Your task to perform on an android device: Open Android settings Image 0: 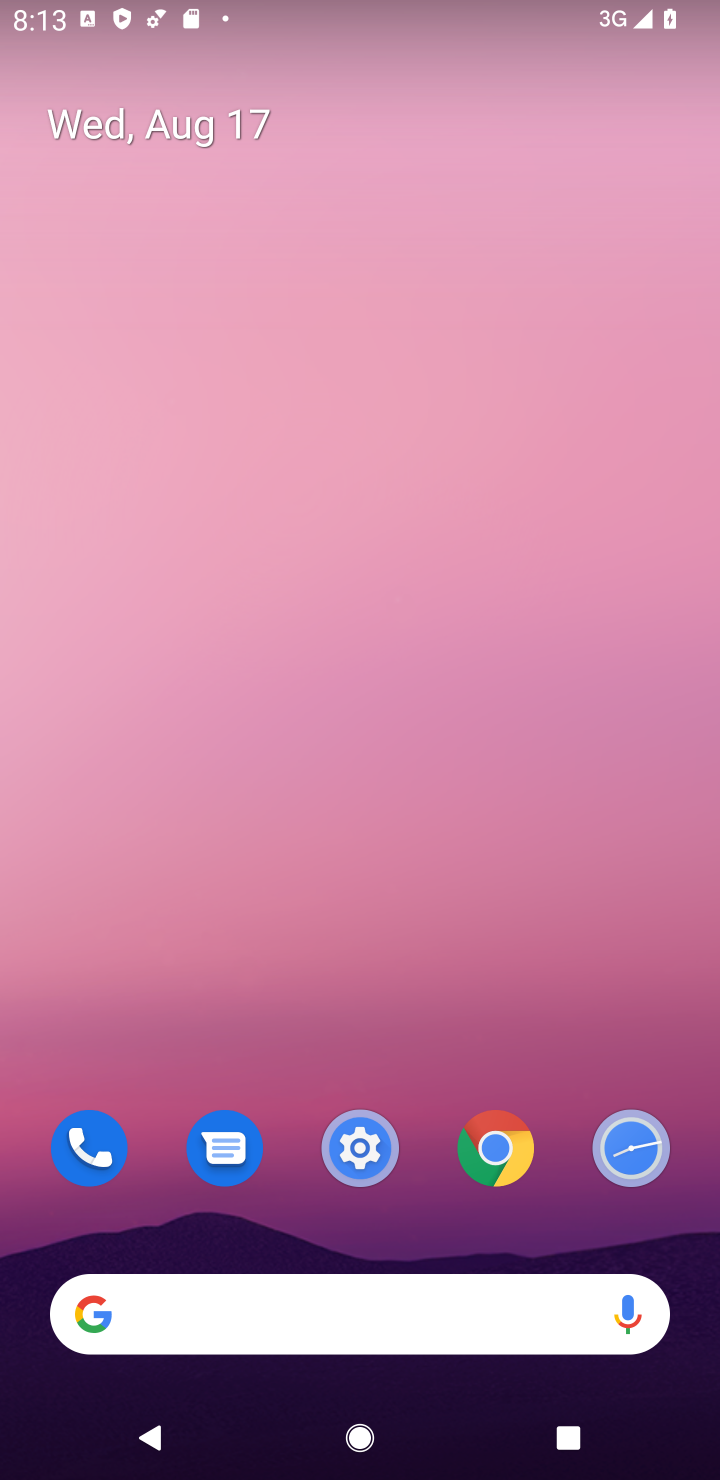
Step 0: click (356, 1147)
Your task to perform on an android device: Open Android settings Image 1: 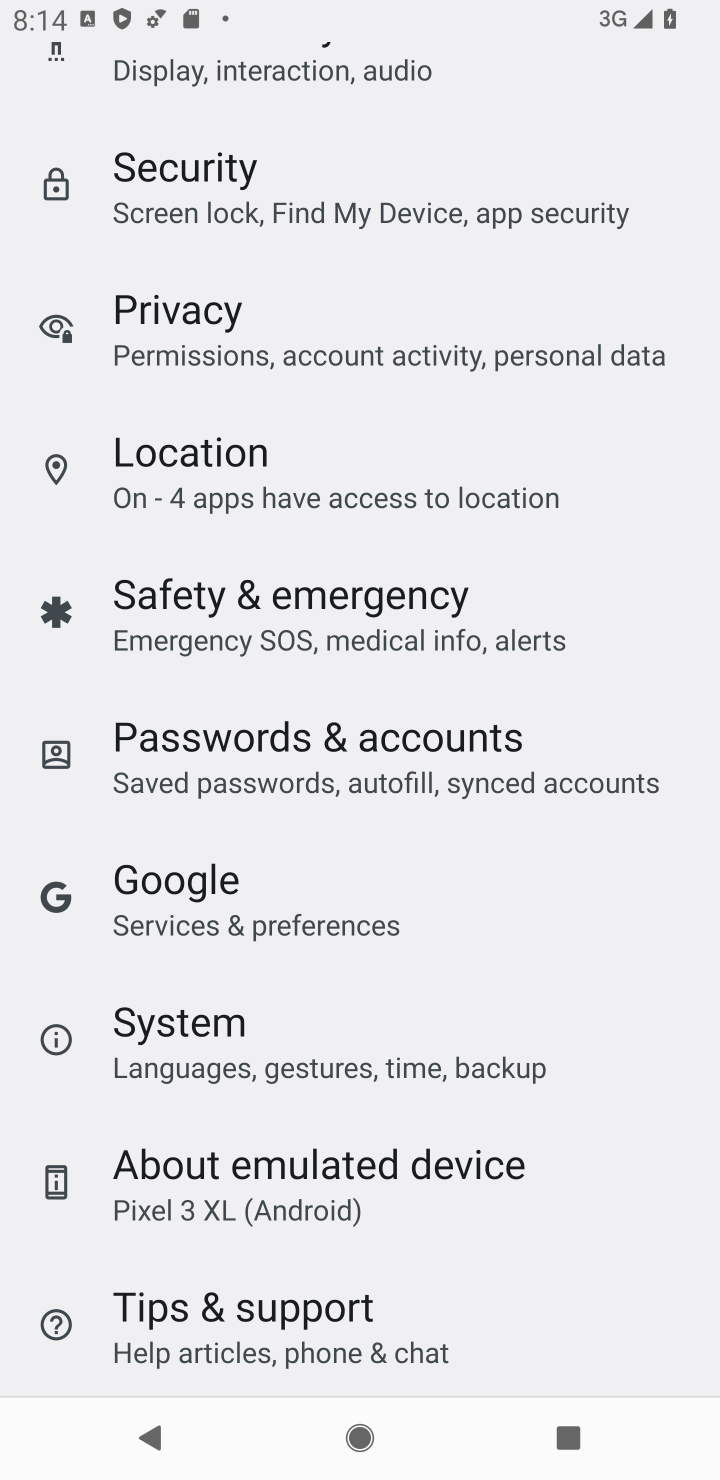
Step 1: click (201, 1178)
Your task to perform on an android device: Open Android settings Image 2: 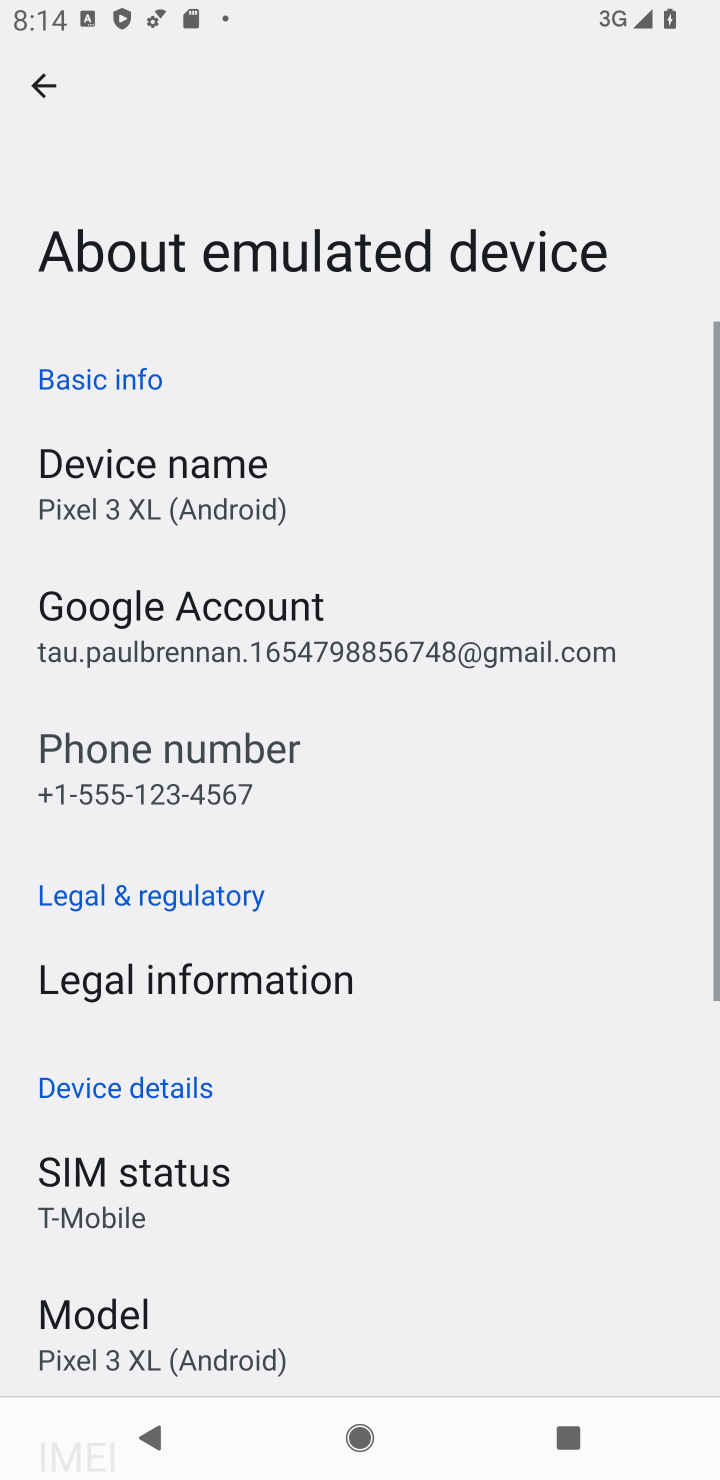
Step 2: task complete